Your task to perform on an android device: Search for alienware aurora on walmart, select the first entry, and add it to the cart. Image 0: 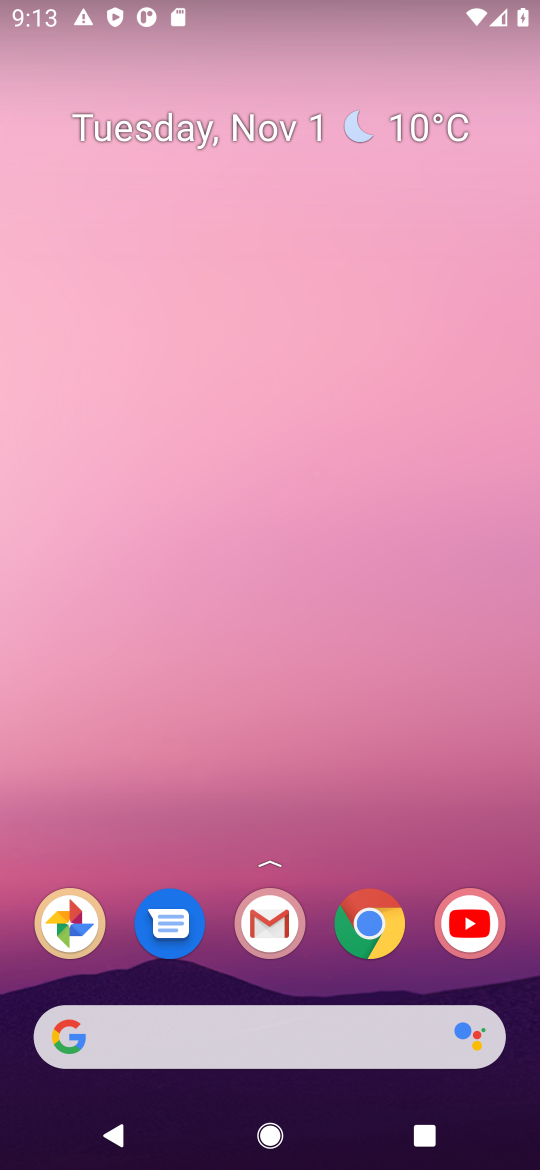
Step 0: press home button
Your task to perform on an android device: Search for alienware aurora on walmart, select the first entry, and add it to the cart. Image 1: 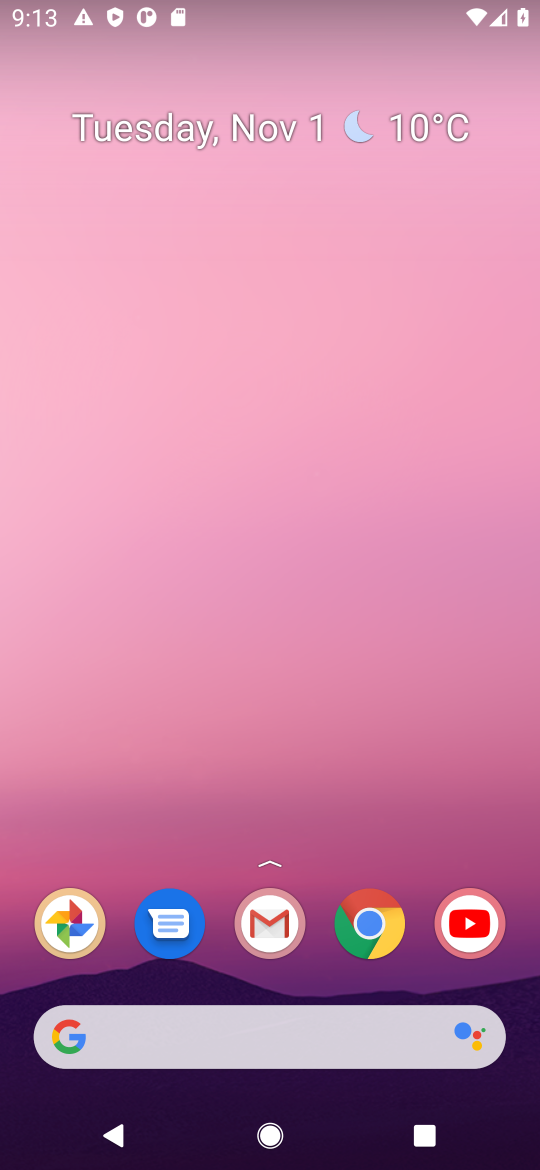
Step 1: drag from (335, 947) to (497, 9)
Your task to perform on an android device: Search for alienware aurora on walmart, select the first entry, and add it to the cart. Image 2: 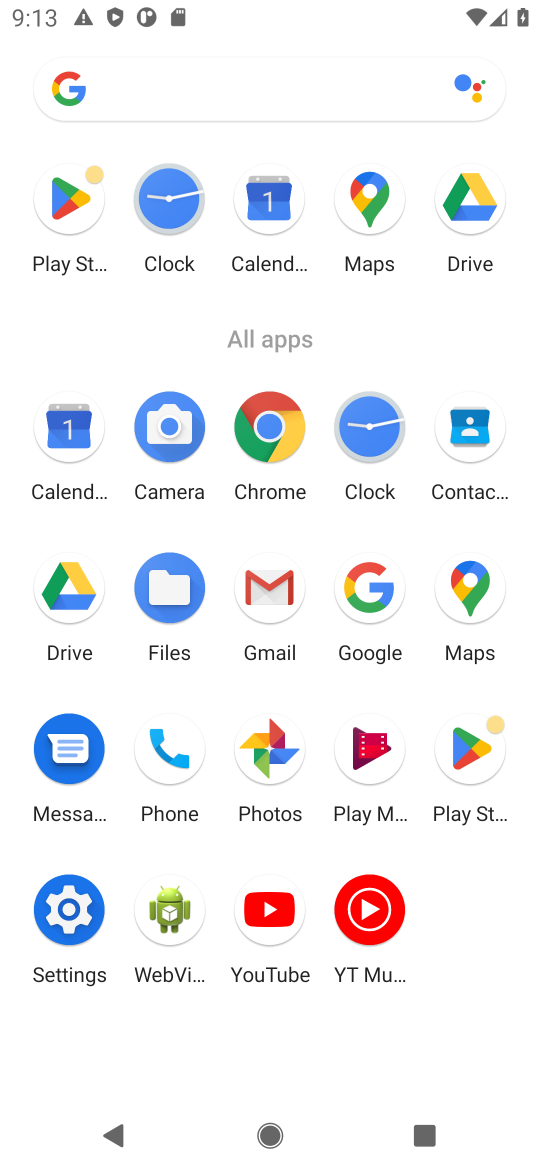
Step 2: click (267, 418)
Your task to perform on an android device: Search for alienware aurora on walmart, select the first entry, and add it to the cart. Image 3: 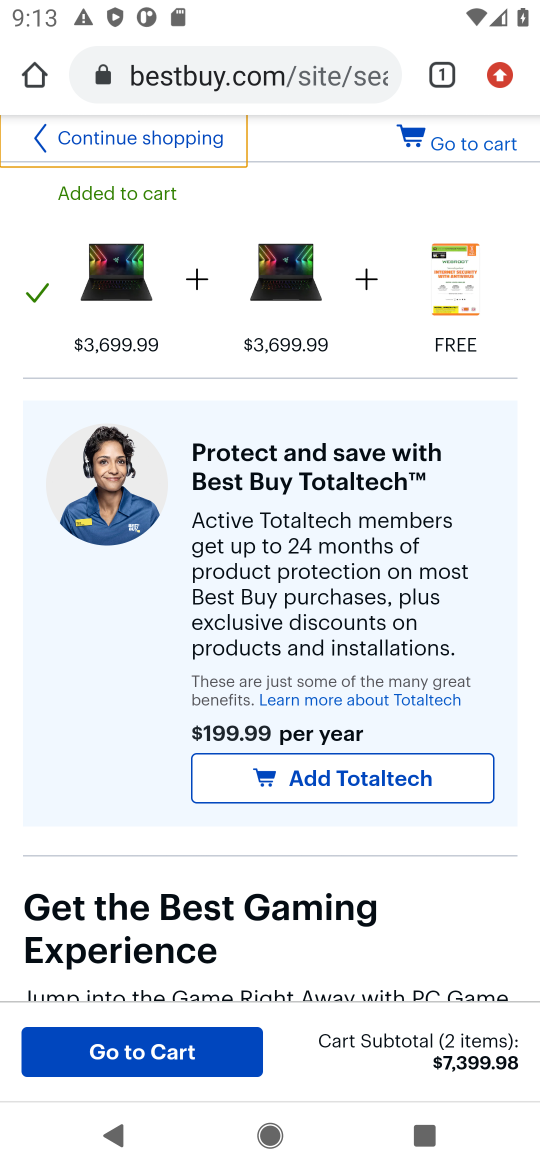
Step 3: click (294, 81)
Your task to perform on an android device: Search for alienware aurora on walmart, select the first entry, and add it to the cart. Image 4: 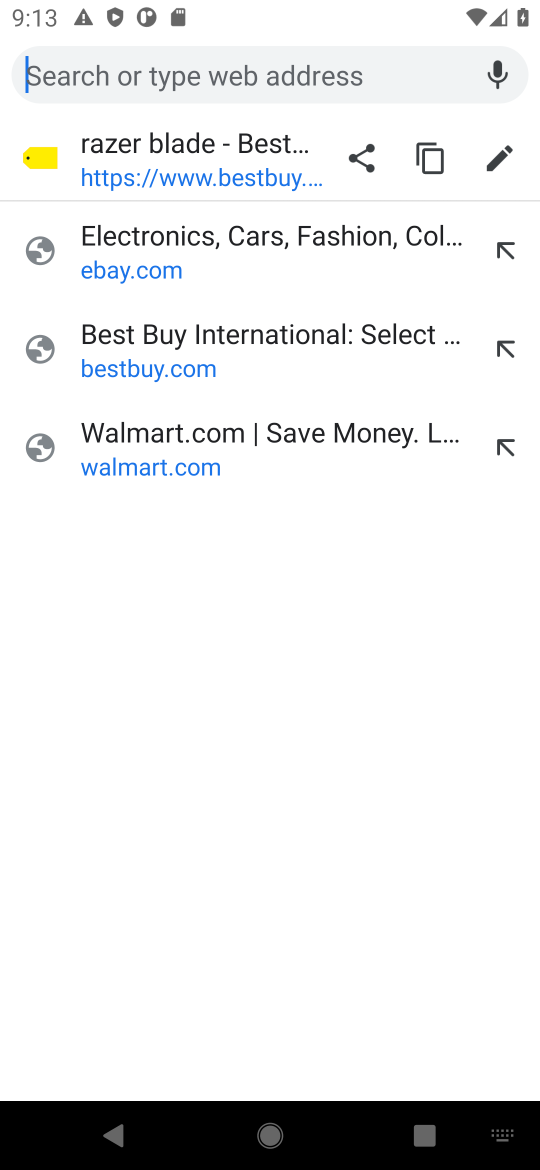
Step 4: type "walmart.com"
Your task to perform on an android device: Search for alienware aurora on walmart, select the first entry, and add it to the cart. Image 5: 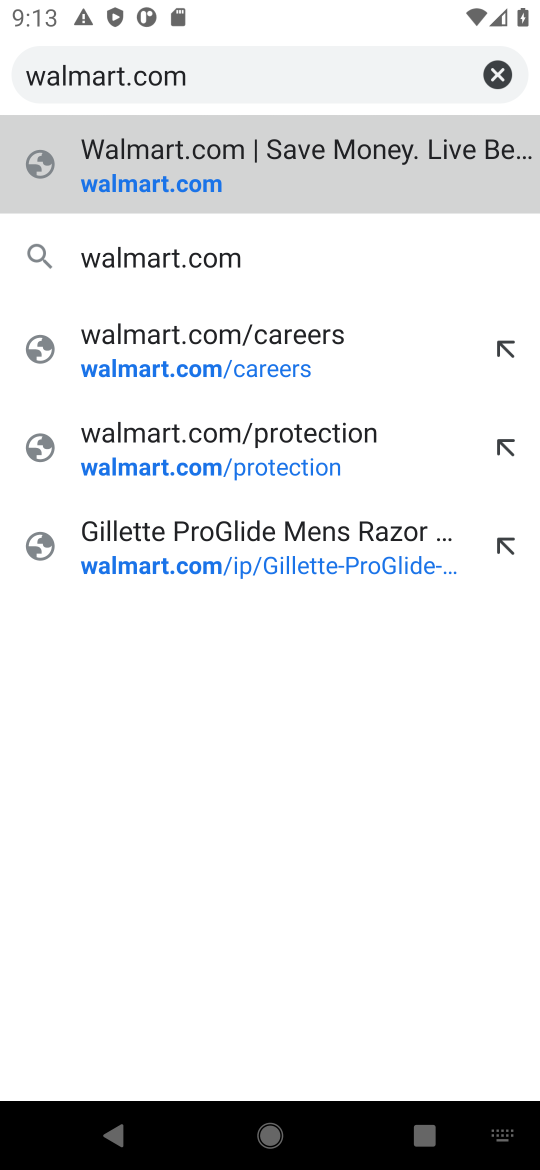
Step 5: press enter
Your task to perform on an android device: Search for alienware aurora on walmart, select the first entry, and add it to the cart. Image 6: 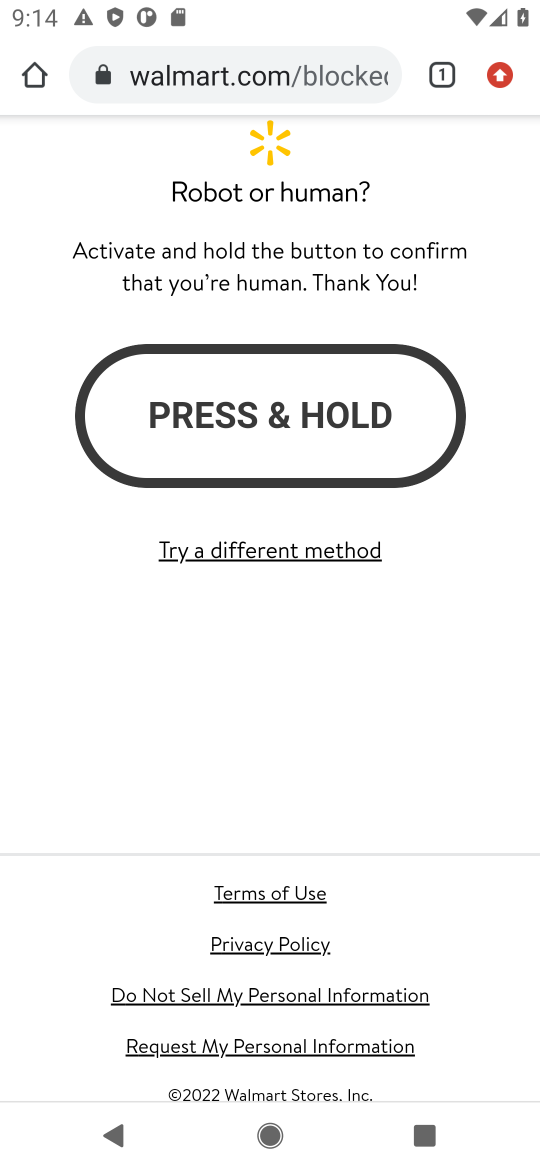
Step 6: click (261, 388)
Your task to perform on an android device: Search for alienware aurora on walmart, select the first entry, and add it to the cart. Image 7: 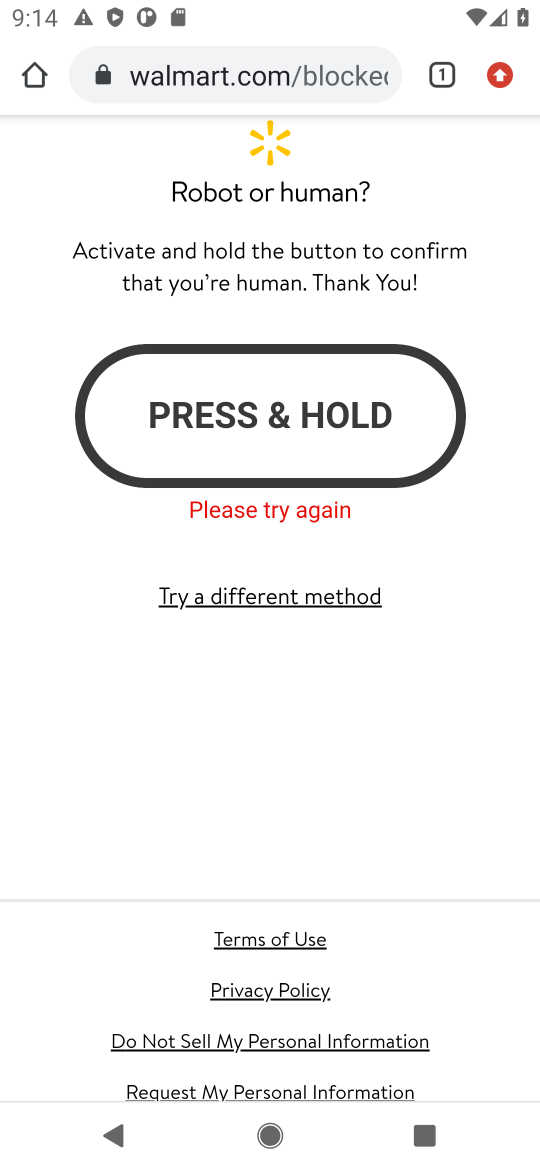
Step 7: click (345, 467)
Your task to perform on an android device: Search for alienware aurora on walmart, select the first entry, and add it to the cart. Image 8: 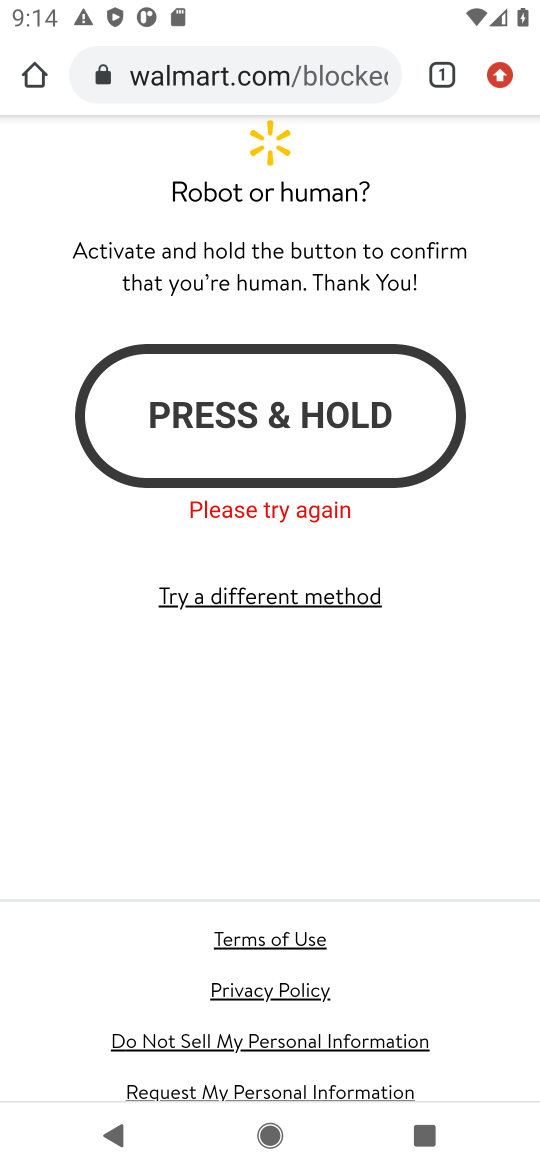
Step 8: click (332, 366)
Your task to perform on an android device: Search for alienware aurora on walmart, select the first entry, and add it to the cart. Image 9: 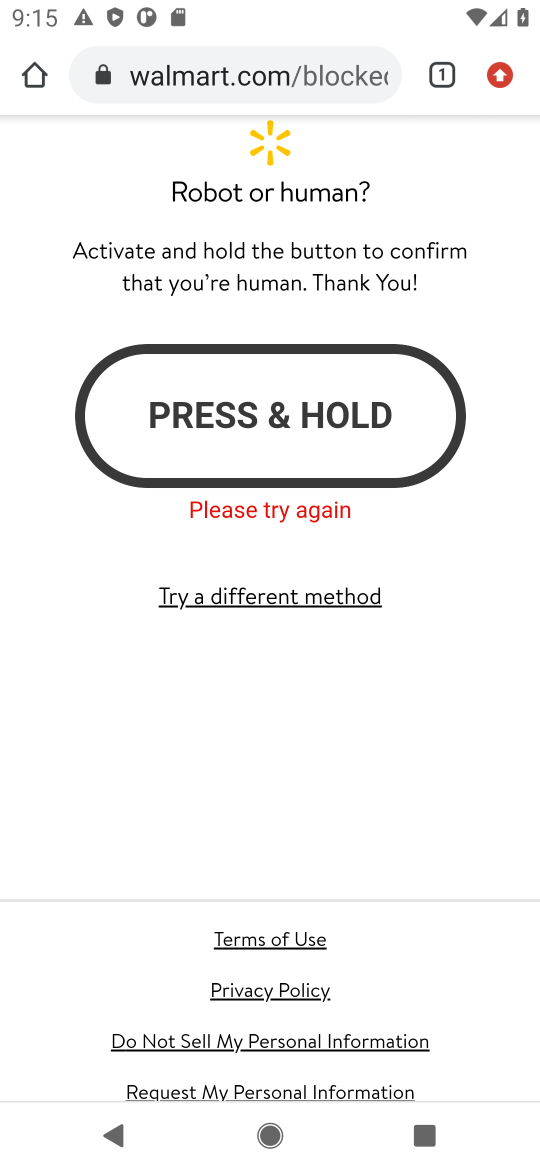
Step 9: task complete